Your task to perform on an android device: delete browsing data in the chrome app Image 0: 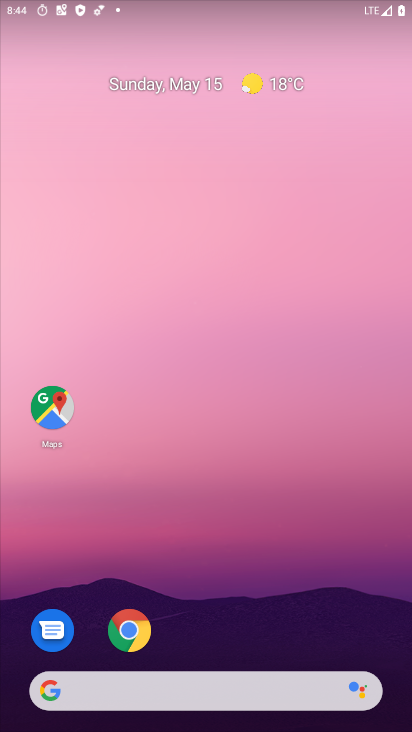
Step 0: drag from (203, 616) to (266, 304)
Your task to perform on an android device: delete browsing data in the chrome app Image 1: 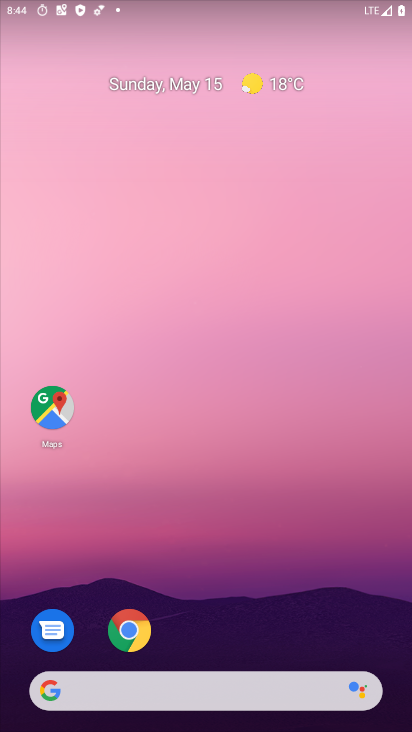
Step 1: drag from (206, 641) to (384, 76)
Your task to perform on an android device: delete browsing data in the chrome app Image 2: 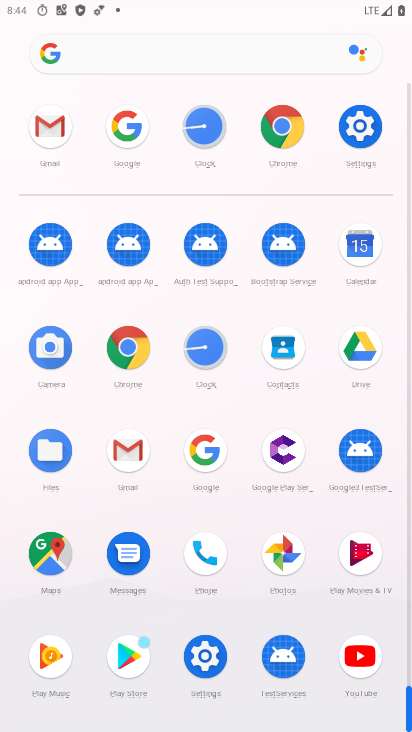
Step 2: click (126, 345)
Your task to perform on an android device: delete browsing data in the chrome app Image 3: 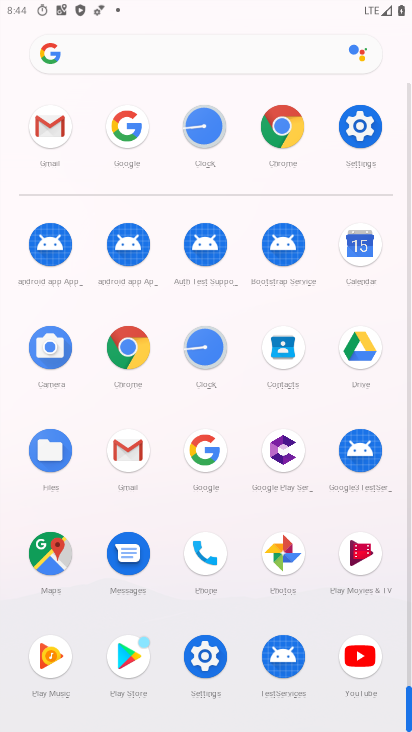
Step 3: click (126, 345)
Your task to perform on an android device: delete browsing data in the chrome app Image 4: 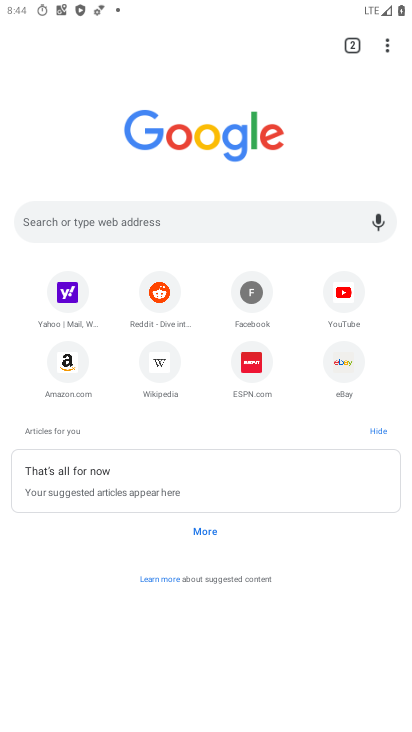
Step 4: drag from (390, 47) to (222, 250)
Your task to perform on an android device: delete browsing data in the chrome app Image 5: 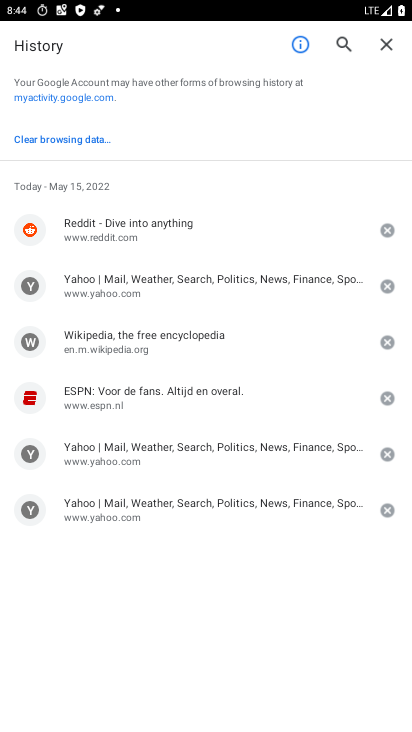
Step 5: click (88, 140)
Your task to perform on an android device: delete browsing data in the chrome app Image 6: 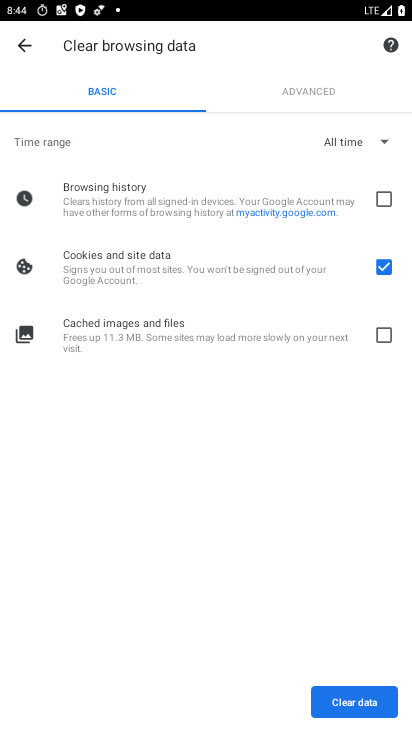
Step 6: click (375, 204)
Your task to perform on an android device: delete browsing data in the chrome app Image 7: 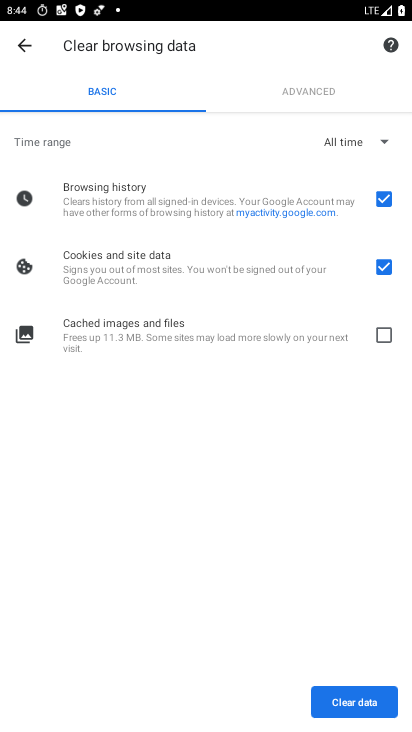
Step 7: click (367, 694)
Your task to perform on an android device: delete browsing data in the chrome app Image 8: 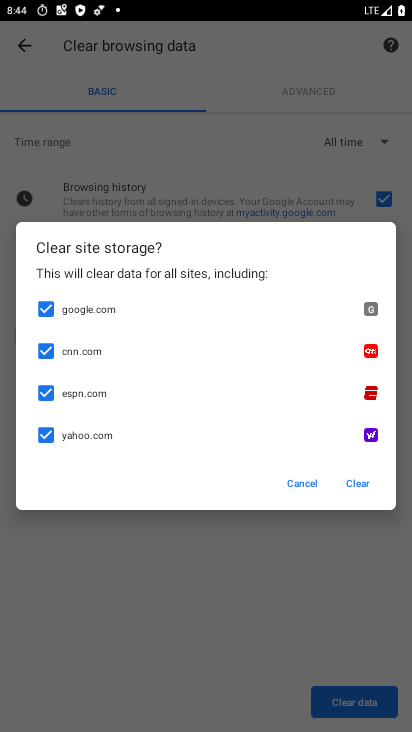
Step 8: click (363, 477)
Your task to perform on an android device: delete browsing data in the chrome app Image 9: 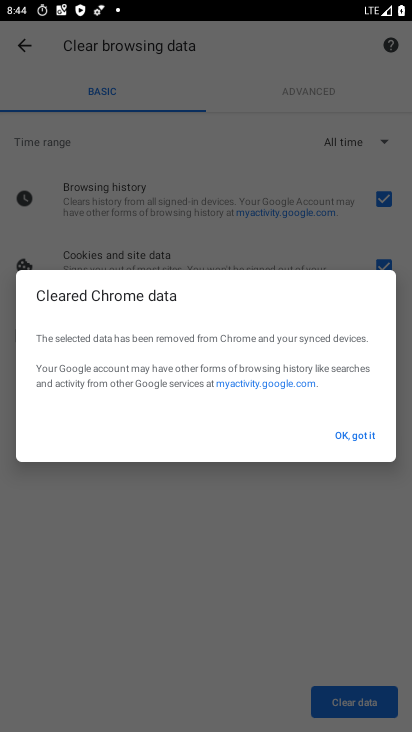
Step 9: task complete